Your task to perform on an android device: What's the weather? Image 0: 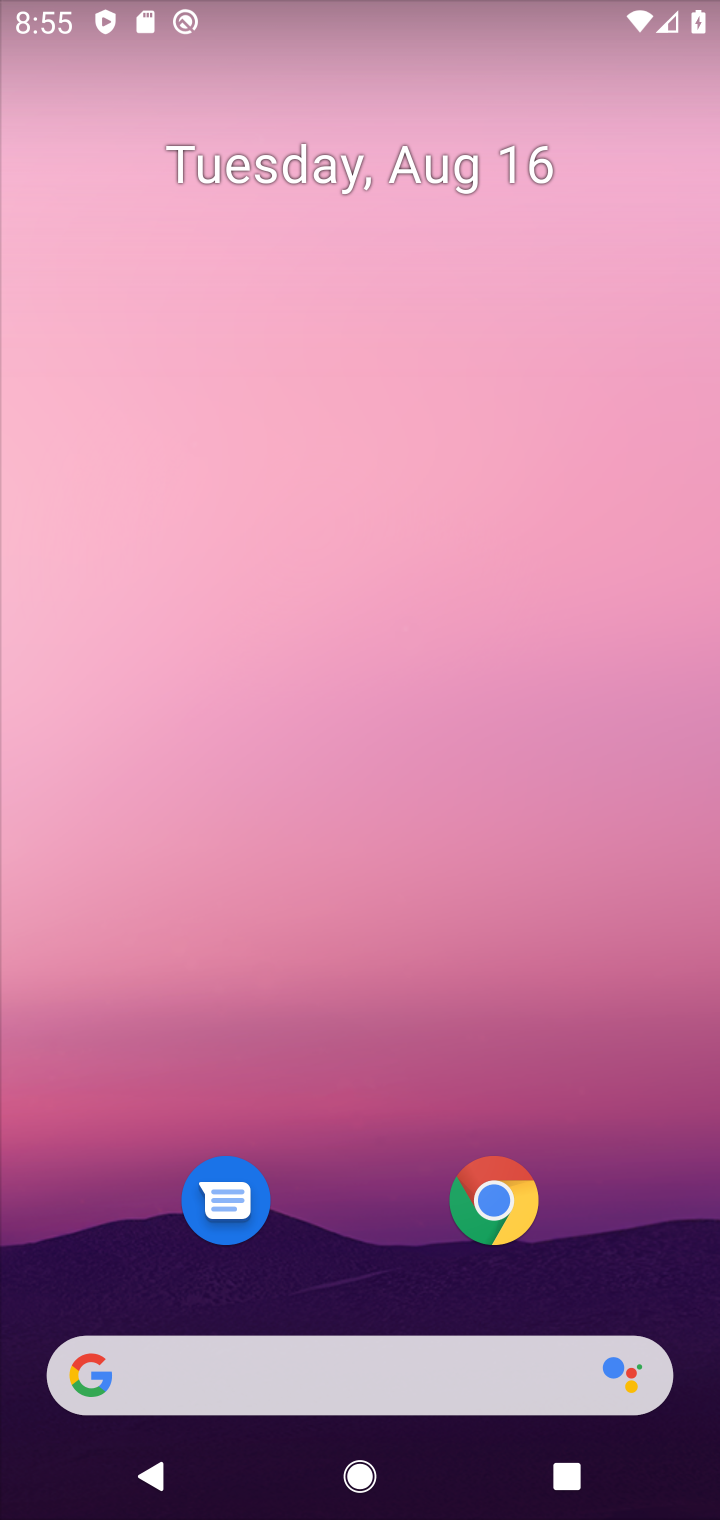
Step 0: drag from (271, 162) to (286, 7)
Your task to perform on an android device: What's the weather? Image 1: 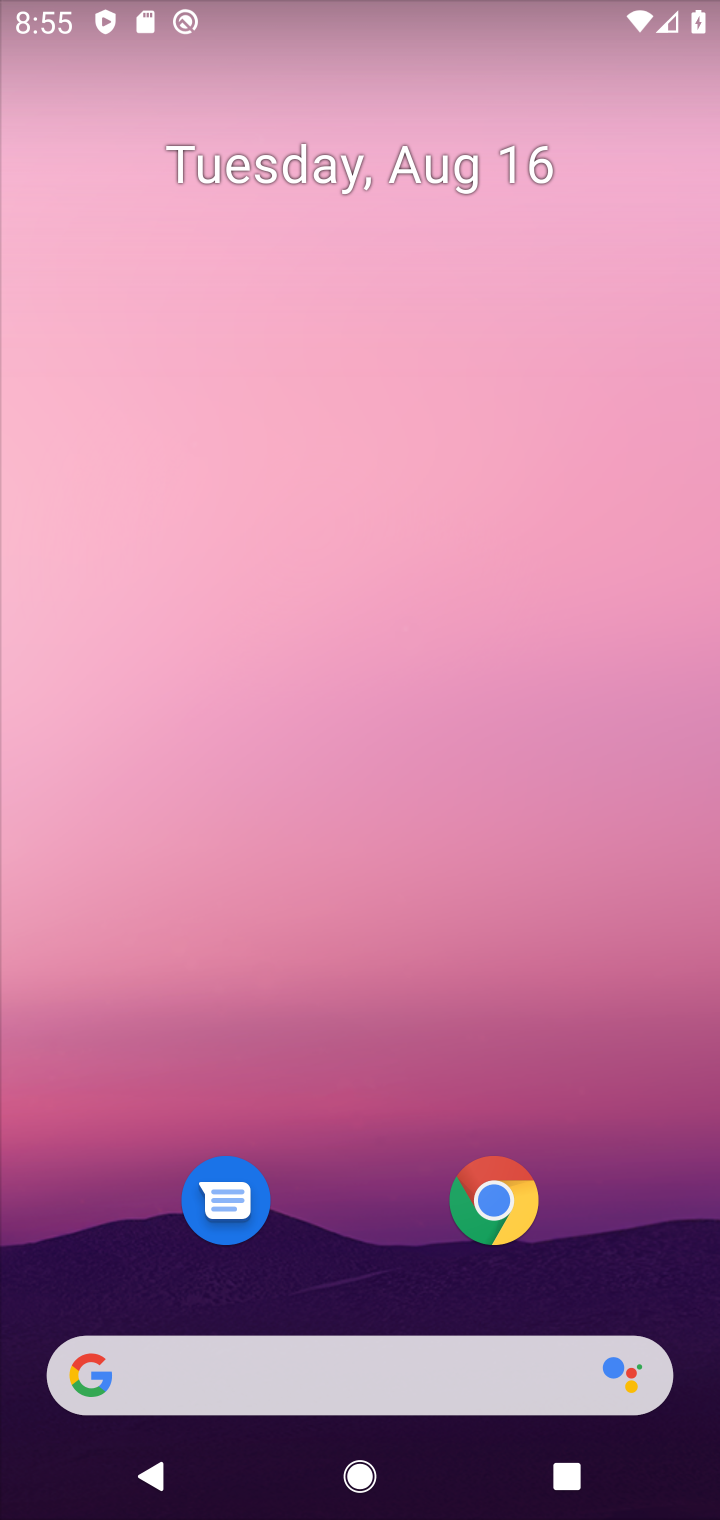
Step 1: drag from (289, 1247) to (258, 490)
Your task to perform on an android device: What's the weather? Image 2: 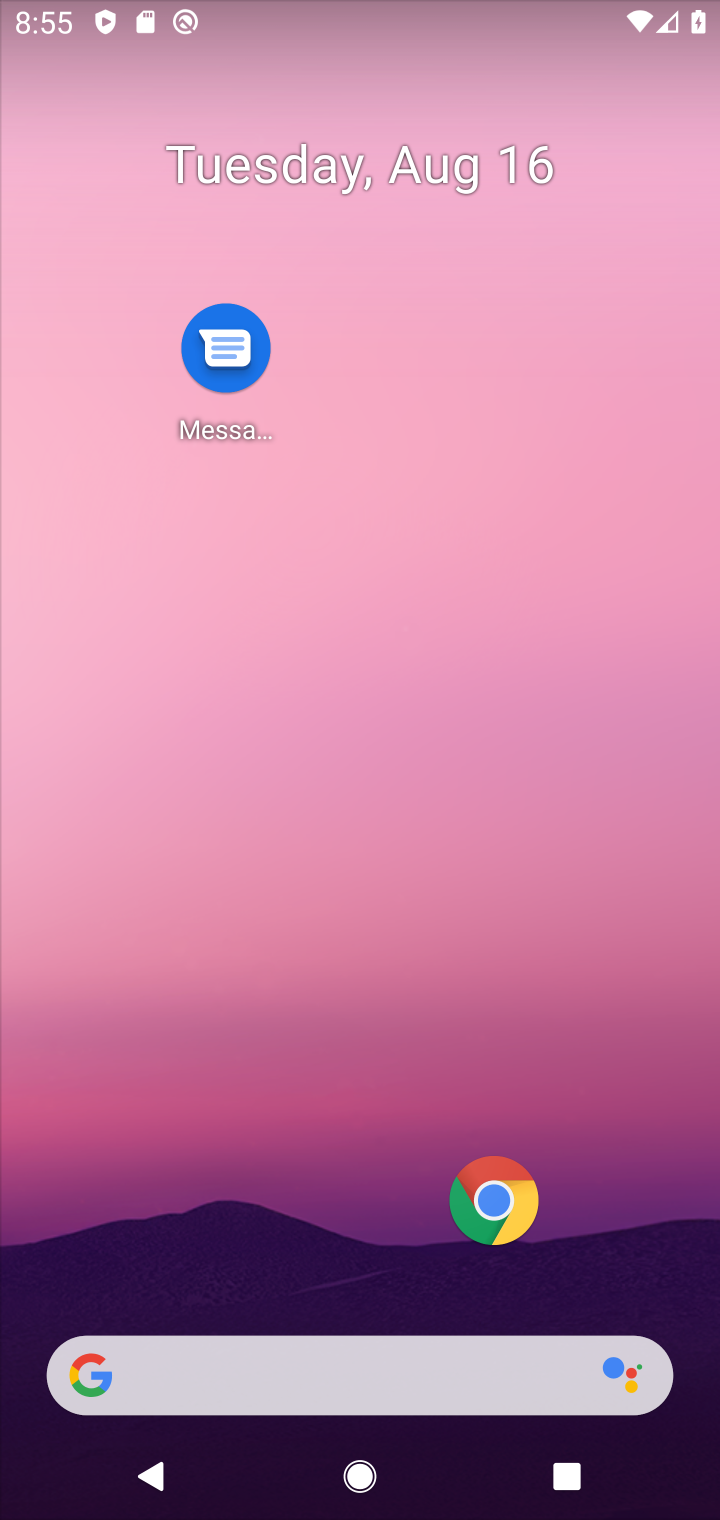
Step 2: drag from (340, 1252) to (362, 59)
Your task to perform on an android device: What's the weather? Image 3: 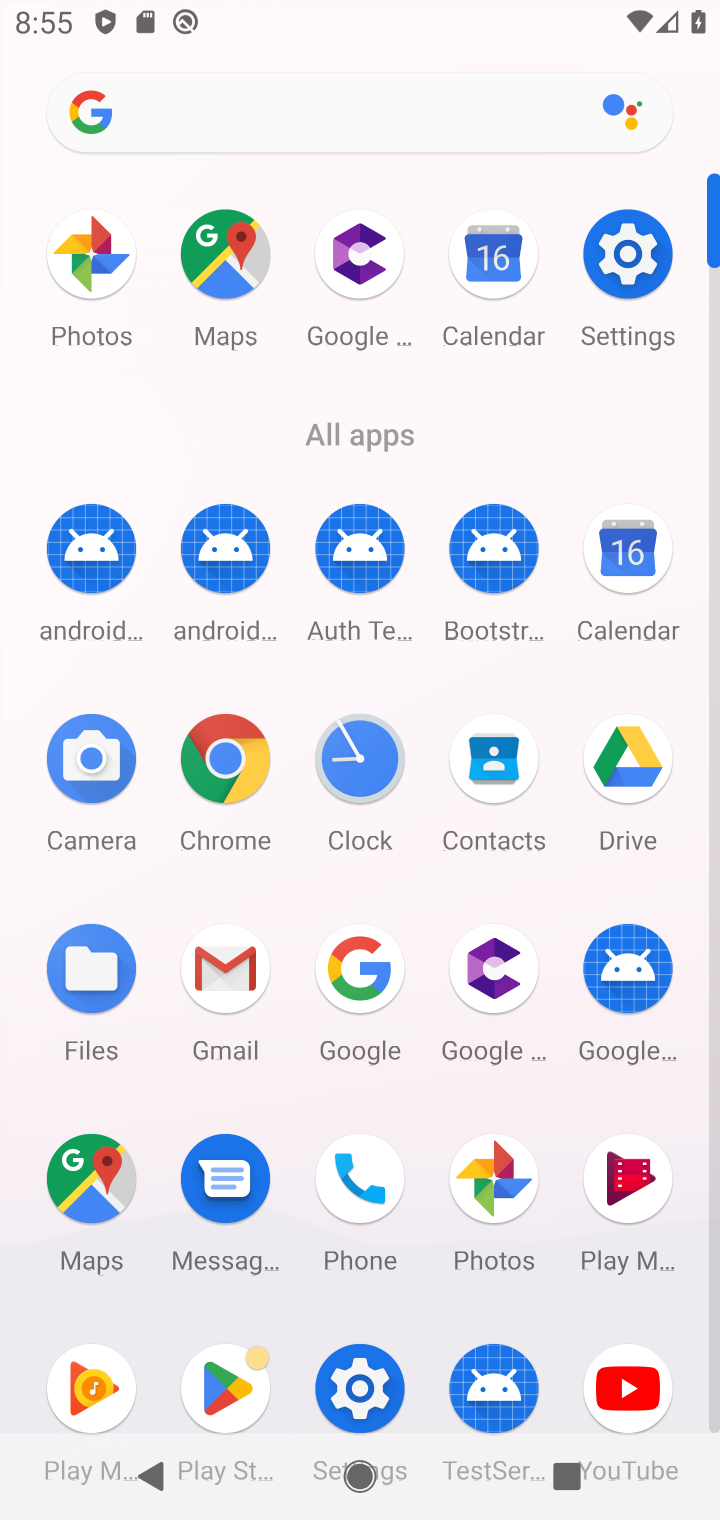
Step 3: click (349, 973)
Your task to perform on an android device: What's the weather? Image 4: 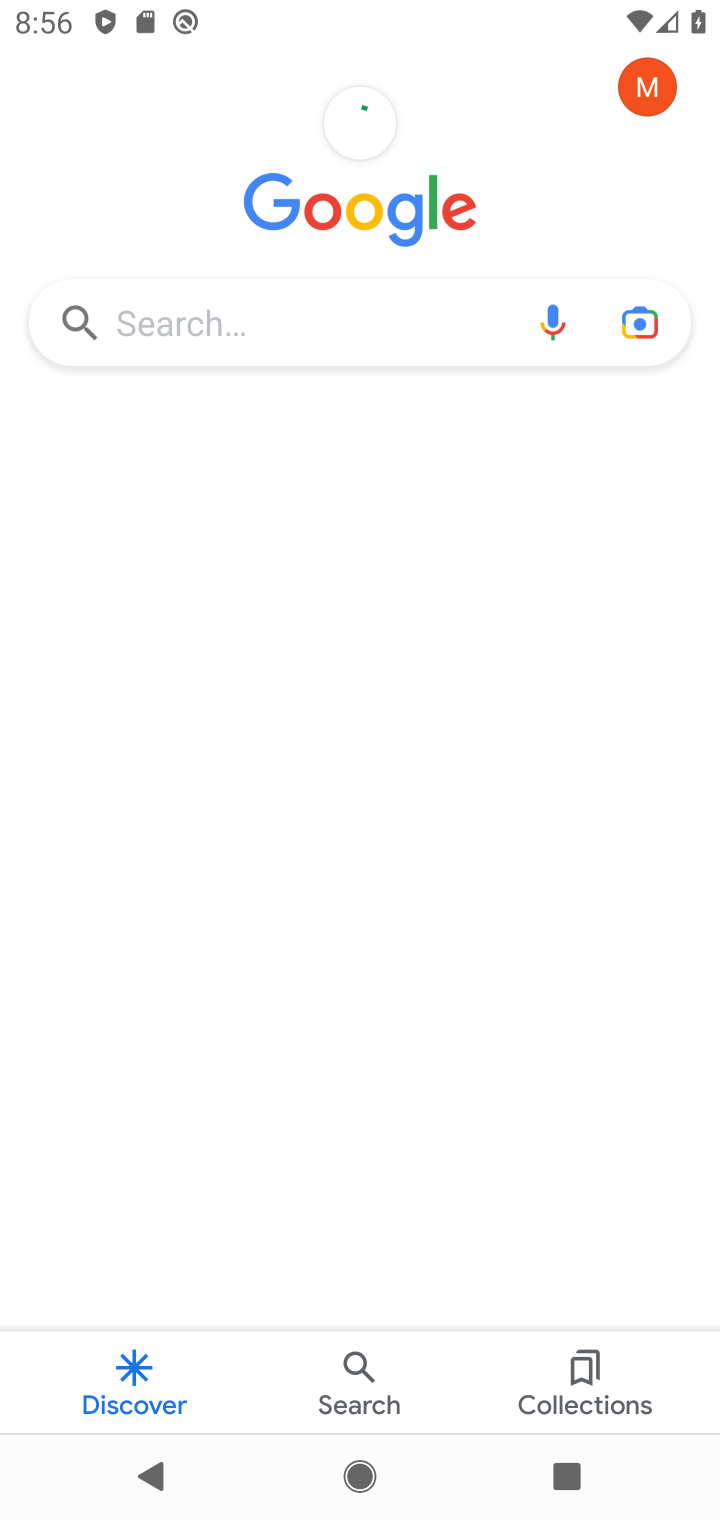
Step 4: click (216, 320)
Your task to perform on an android device: What's the weather? Image 5: 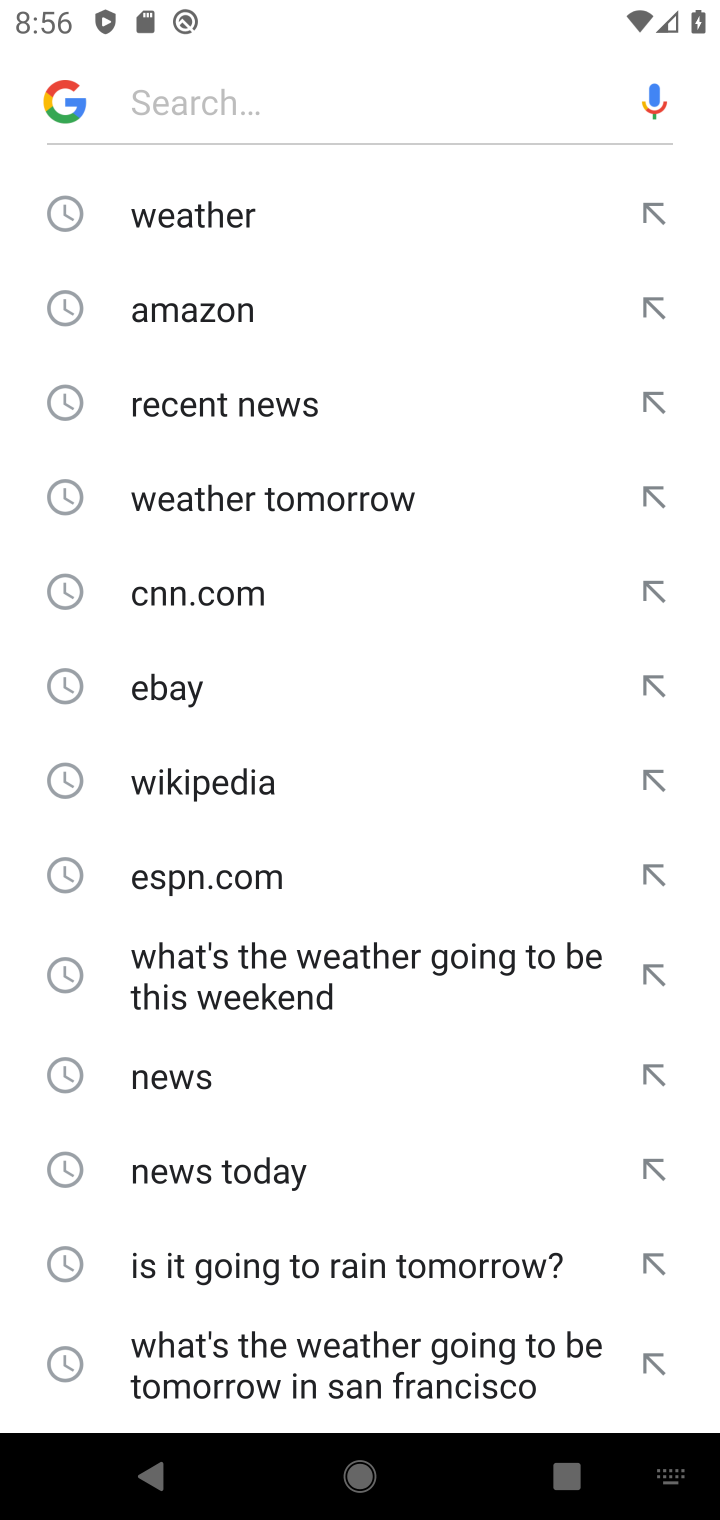
Step 5: click (177, 215)
Your task to perform on an android device: What's the weather? Image 6: 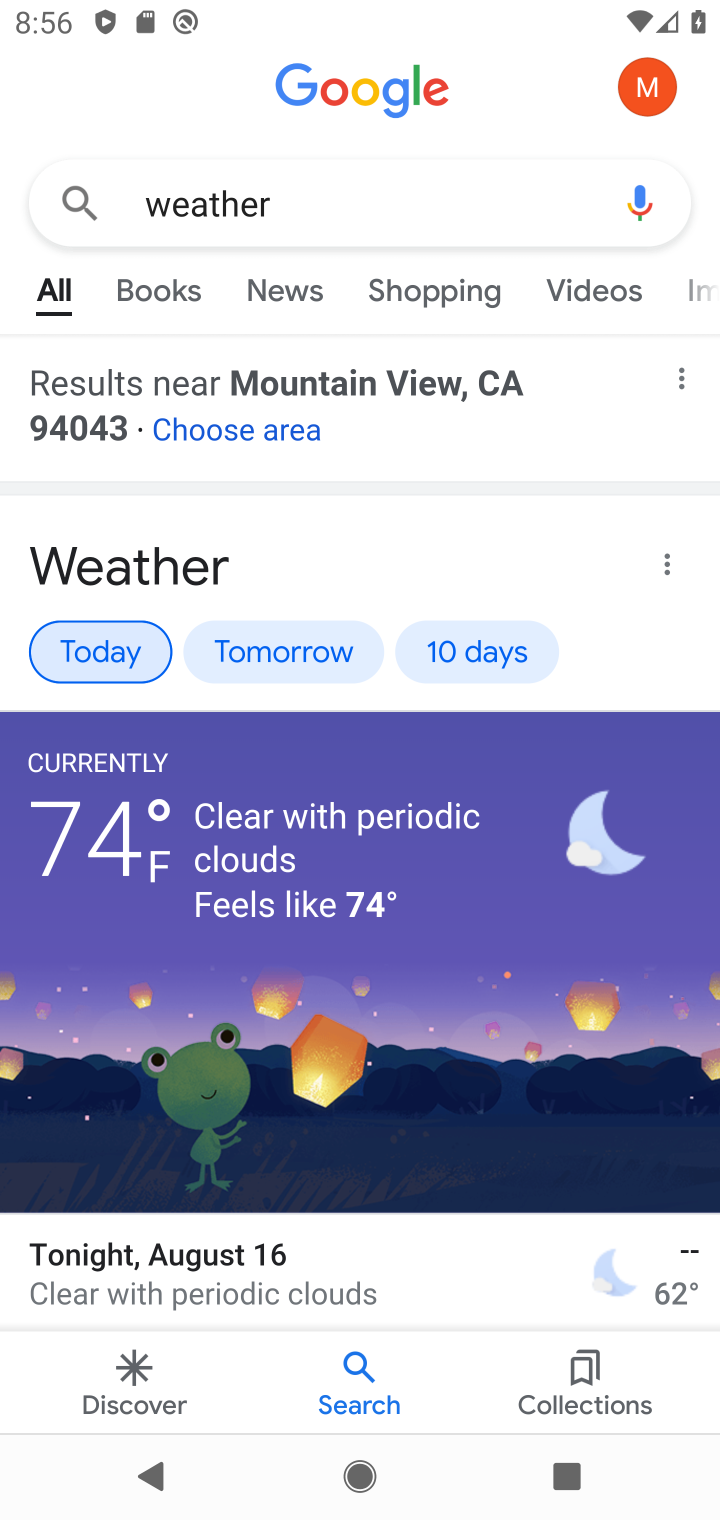
Step 6: task complete